Your task to perform on an android device: Search for seafood restaurants on Google Maps Image 0: 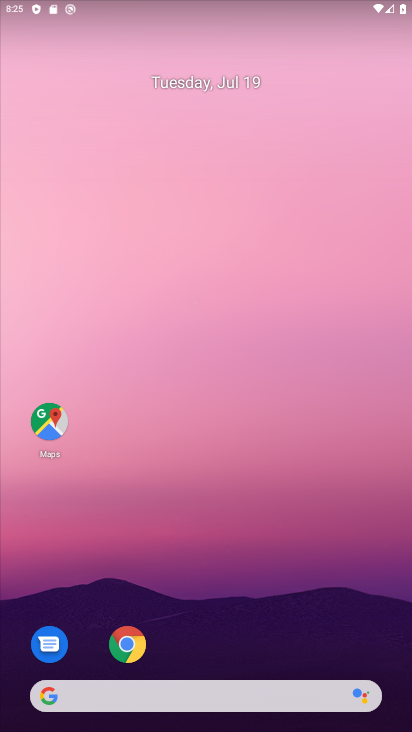
Step 0: drag from (163, 651) to (78, 266)
Your task to perform on an android device: Search for seafood restaurants on Google Maps Image 1: 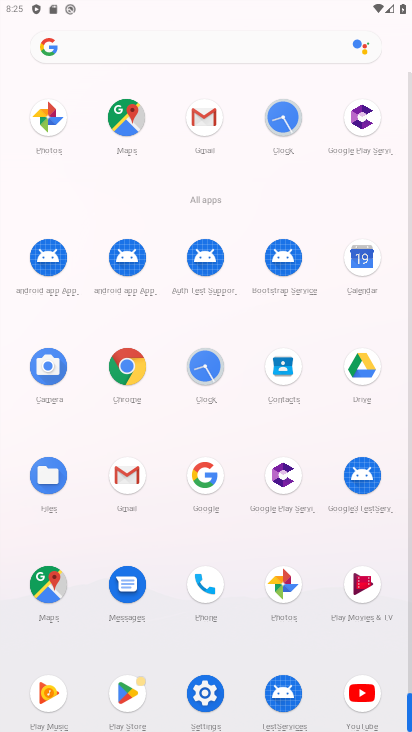
Step 1: click (38, 590)
Your task to perform on an android device: Search for seafood restaurants on Google Maps Image 2: 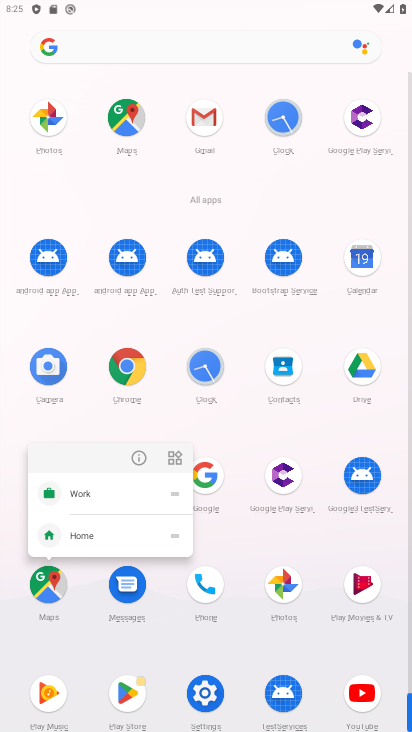
Step 2: click (136, 460)
Your task to perform on an android device: Search for seafood restaurants on Google Maps Image 3: 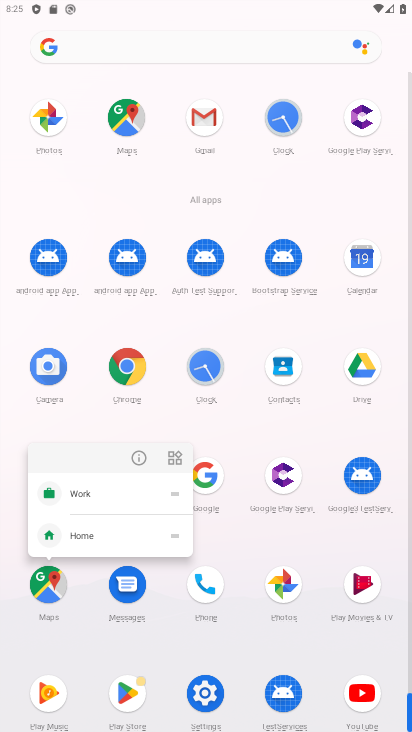
Step 3: click (129, 453)
Your task to perform on an android device: Search for seafood restaurants on Google Maps Image 4: 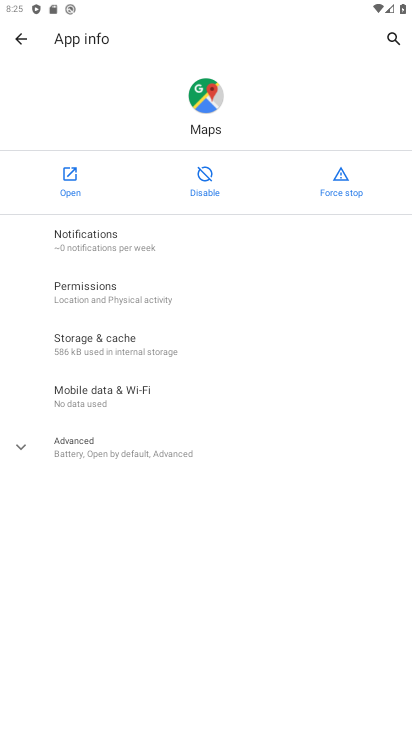
Step 4: click (64, 181)
Your task to perform on an android device: Search for seafood restaurants on Google Maps Image 5: 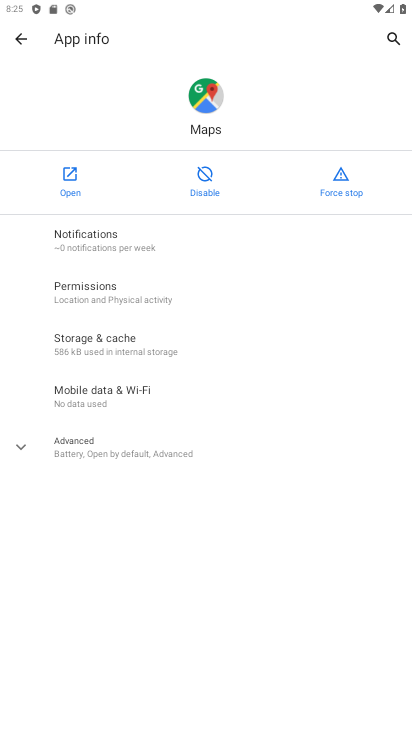
Step 5: click (64, 181)
Your task to perform on an android device: Search for seafood restaurants on Google Maps Image 6: 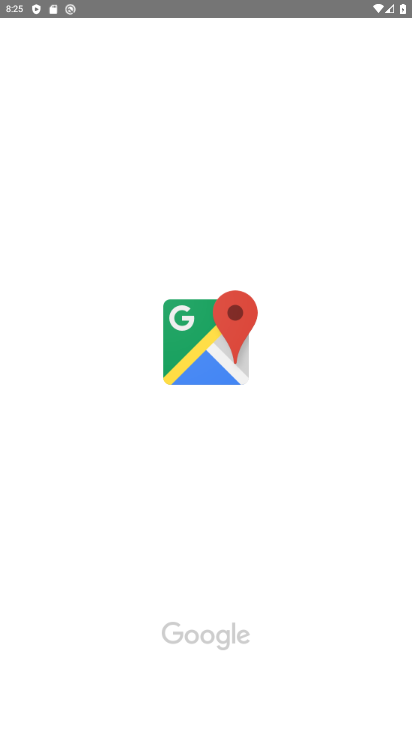
Step 6: drag from (245, 492) to (217, 271)
Your task to perform on an android device: Search for seafood restaurants on Google Maps Image 7: 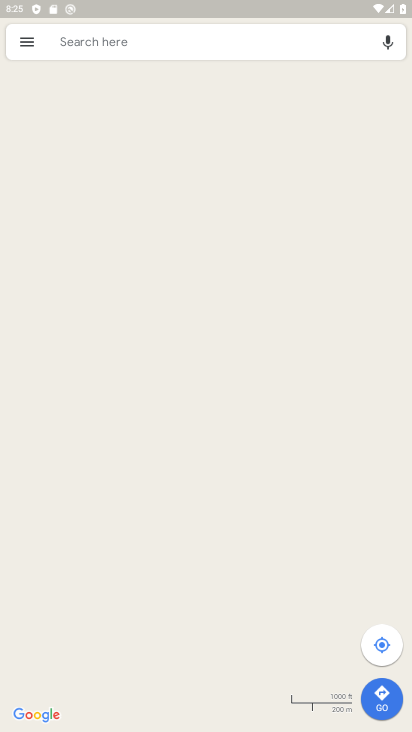
Step 7: drag from (179, 542) to (120, 335)
Your task to perform on an android device: Search for seafood restaurants on Google Maps Image 8: 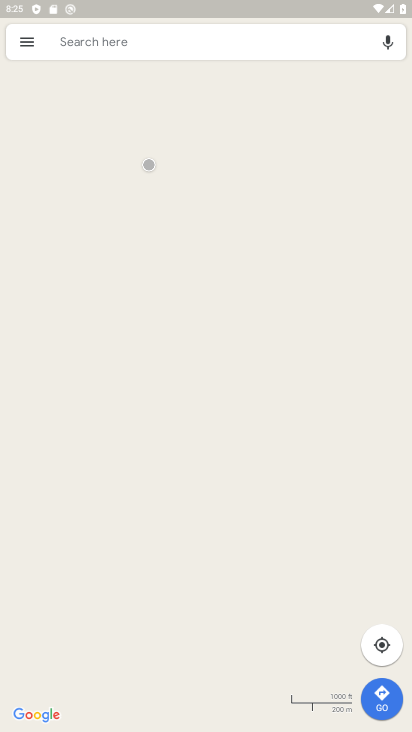
Step 8: click (143, 58)
Your task to perform on an android device: Search for seafood restaurants on Google Maps Image 9: 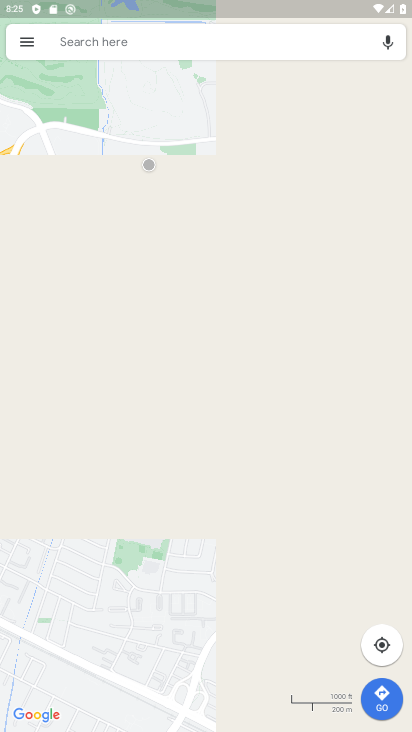
Step 9: click (122, 44)
Your task to perform on an android device: Search for seafood restaurants on Google Maps Image 10: 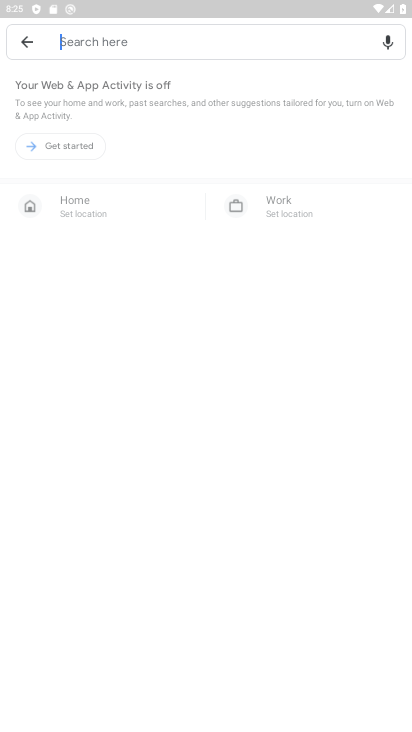
Step 10: click (117, 43)
Your task to perform on an android device: Search for seafood restaurants on Google Maps Image 11: 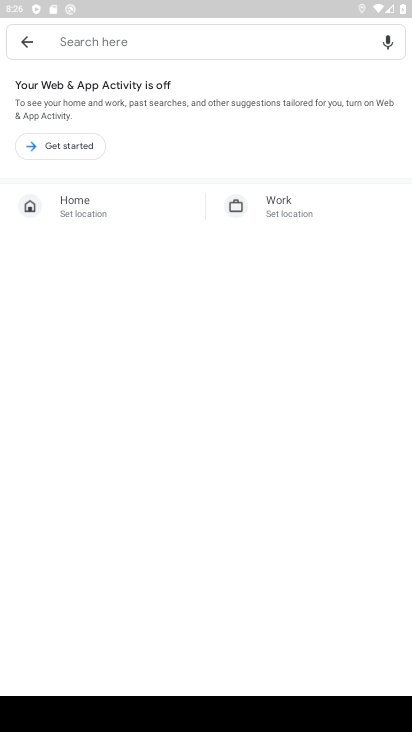
Step 11: type "seafood restaurants"
Your task to perform on an android device: Search for seafood restaurants on Google Maps Image 12: 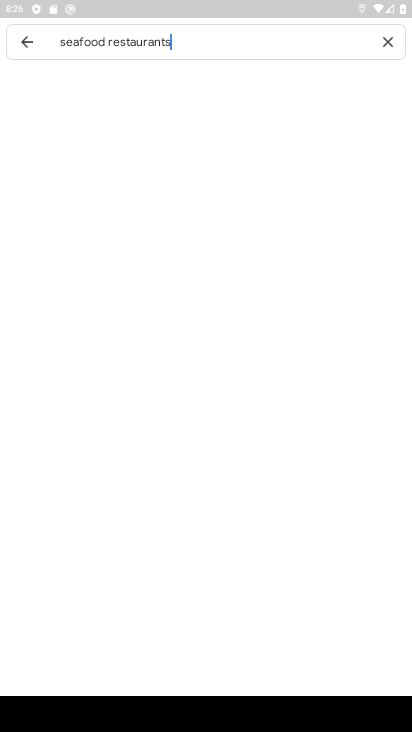
Step 12: type ""
Your task to perform on an android device: Search for seafood restaurants on Google Maps Image 13: 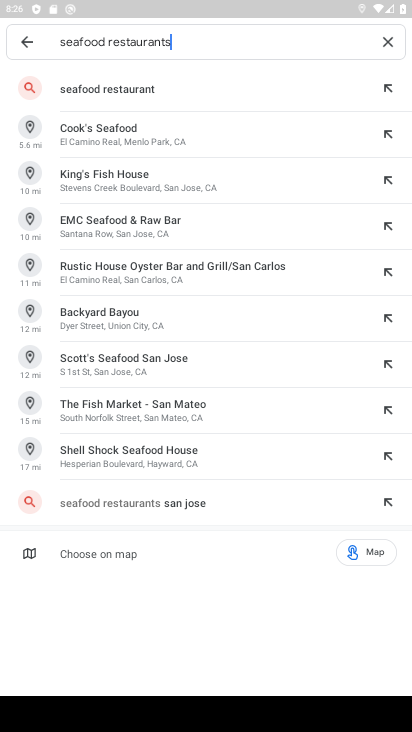
Step 13: click (127, 92)
Your task to perform on an android device: Search for seafood restaurants on Google Maps Image 14: 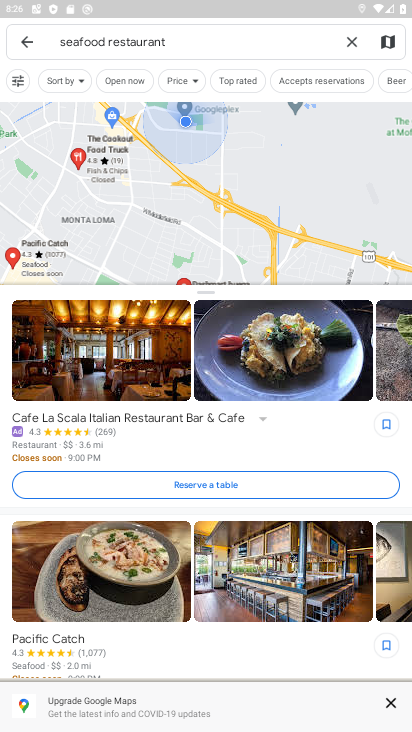
Step 14: task complete